Your task to perform on an android device: change timer sound Image 0: 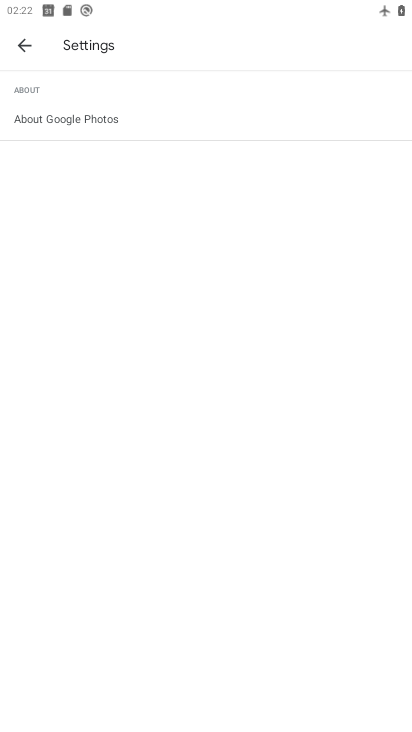
Step 0: press home button
Your task to perform on an android device: change timer sound Image 1: 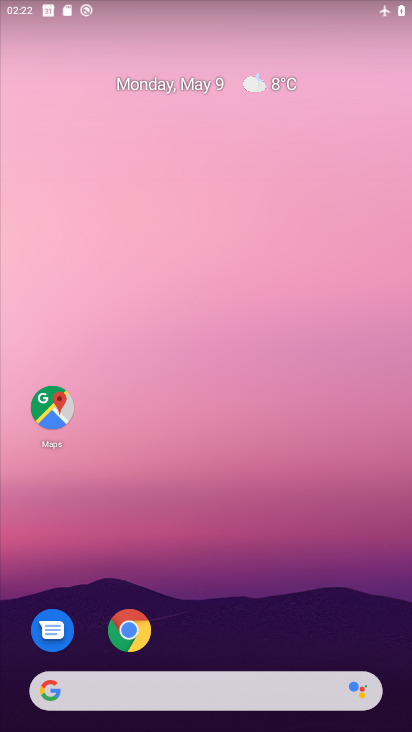
Step 1: drag from (178, 620) to (265, 16)
Your task to perform on an android device: change timer sound Image 2: 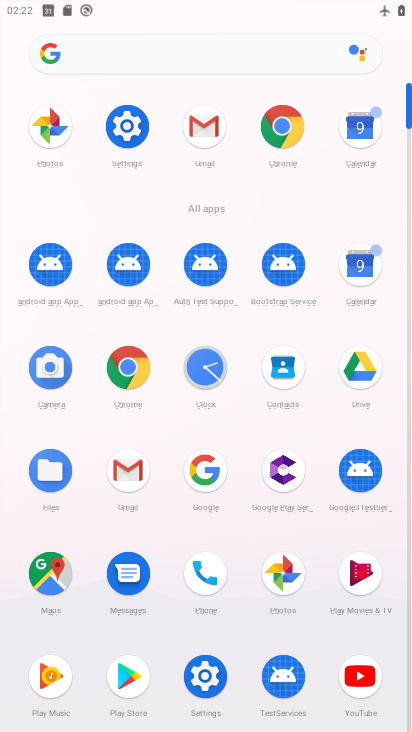
Step 2: click (224, 387)
Your task to perform on an android device: change timer sound Image 3: 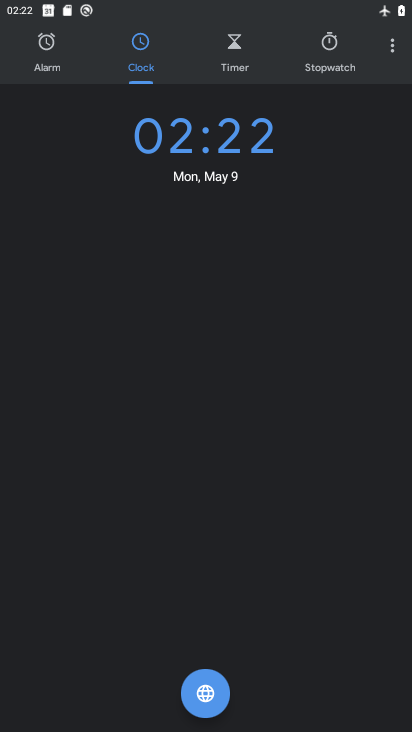
Step 3: click (399, 50)
Your task to perform on an android device: change timer sound Image 4: 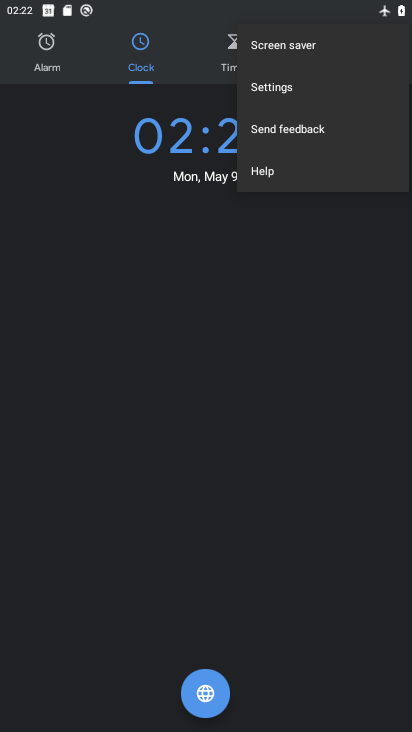
Step 4: click (283, 102)
Your task to perform on an android device: change timer sound Image 5: 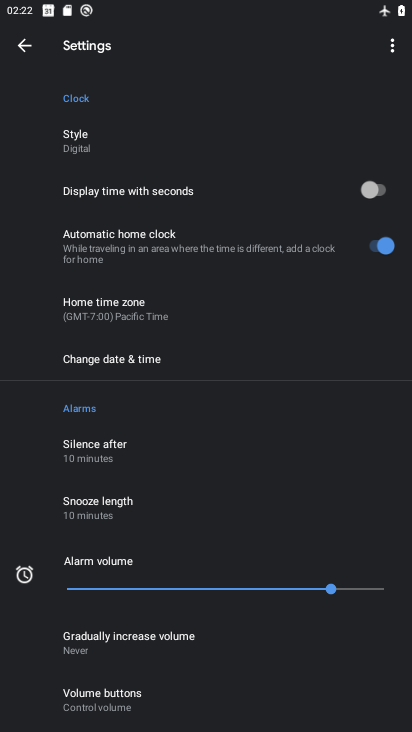
Step 5: drag from (133, 569) to (211, 246)
Your task to perform on an android device: change timer sound Image 6: 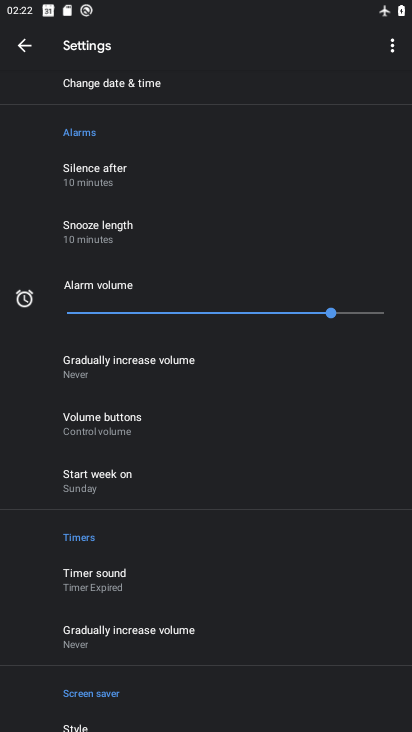
Step 6: click (163, 583)
Your task to perform on an android device: change timer sound Image 7: 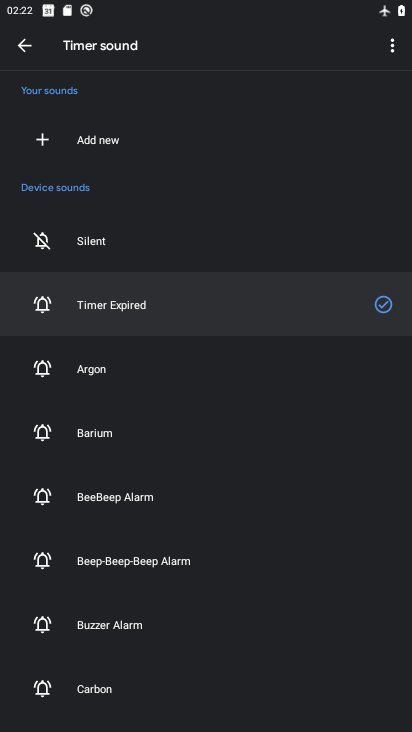
Step 7: click (105, 619)
Your task to perform on an android device: change timer sound Image 8: 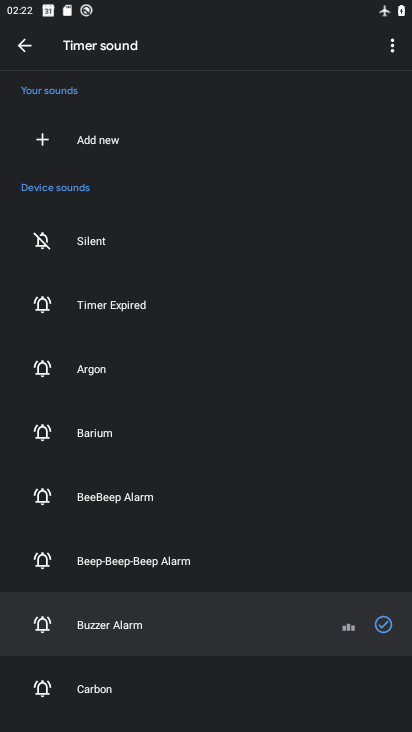
Step 8: task complete